Your task to perform on an android device: move an email to a new category in the gmail app Image 0: 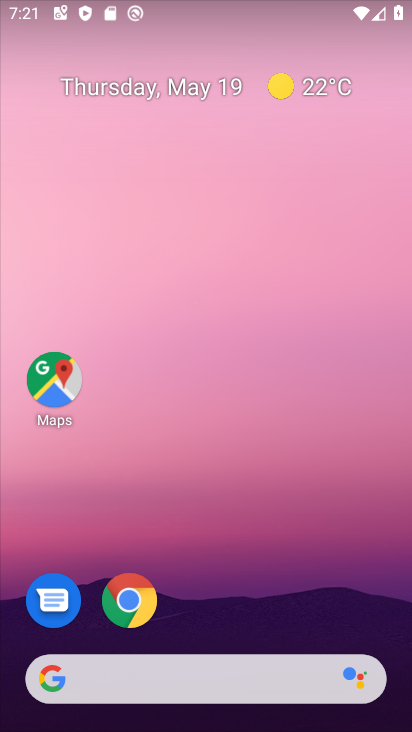
Step 0: drag from (359, 566) to (333, 175)
Your task to perform on an android device: move an email to a new category in the gmail app Image 1: 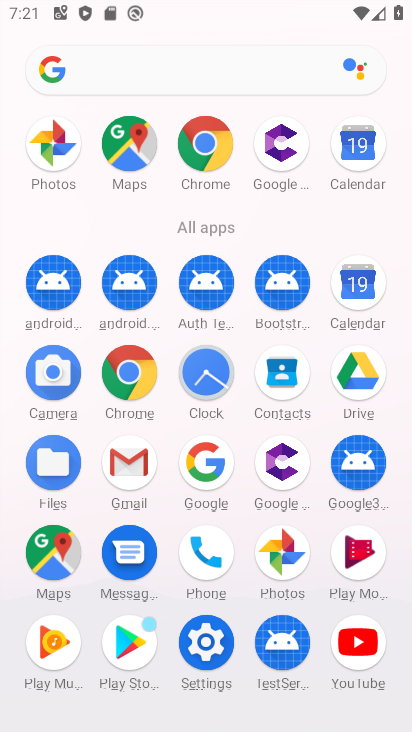
Step 1: click (131, 469)
Your task to perform on an android device: move an email to a new category in the gmail app Image 2: 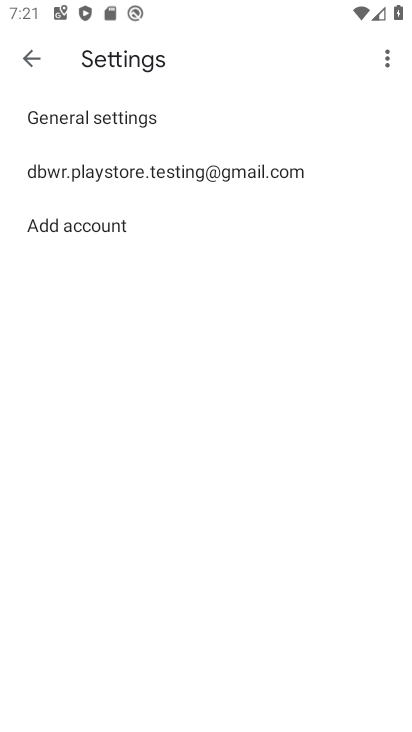
Step 2: click (268, 161)
Your task to perform on an android device: move an email to a new category in the gmail app Image 3: 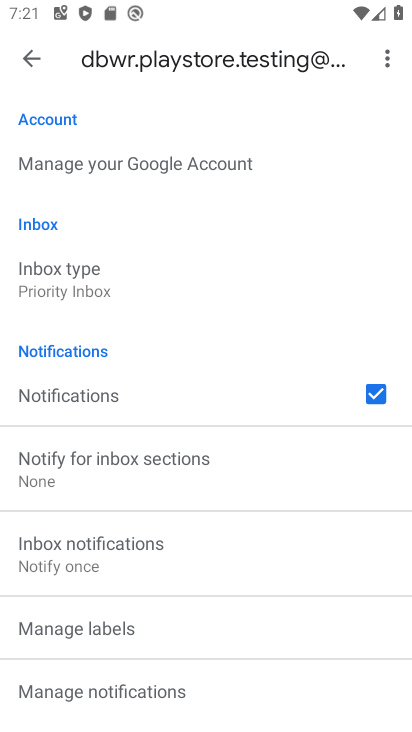
Step 3: click (41, 65)
Your task to perform on an android device: move an email to a new category in the gmail app Image 4: 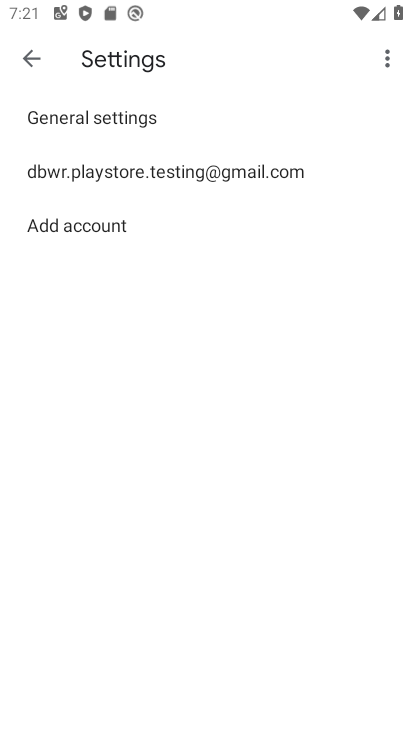
Step 4: click (41, 65)
Your task to perform on an android device: move an email to a new category in the gmail app Image 5: 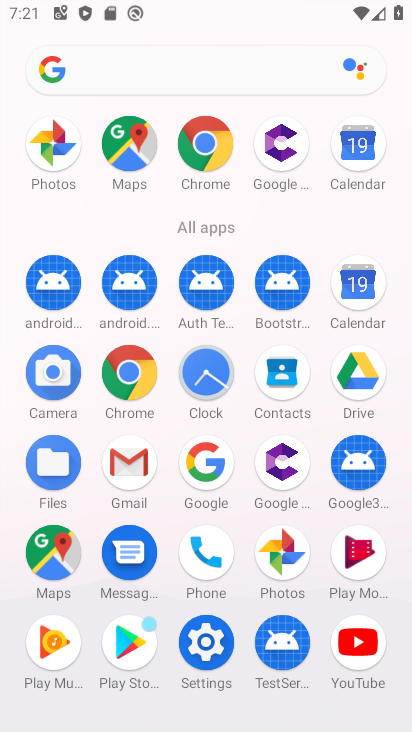
Step 5: click (126, 469)
Your task to perform on an android device: move an email to a new category in the gmail app Image 6: 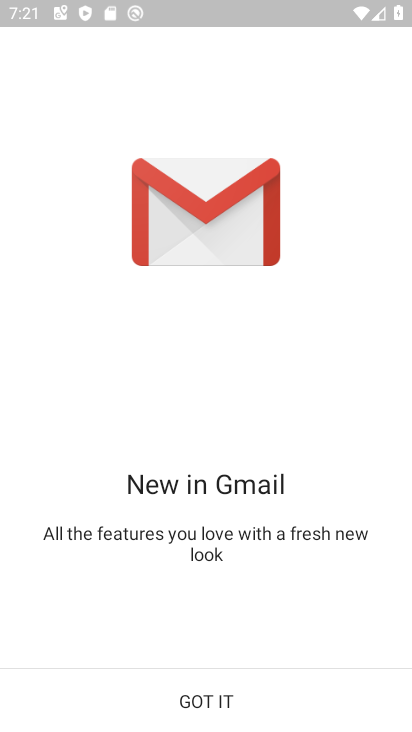
Step 6: click (216, 699)
Your task to perform on an android device: move an email to a new category in the gmail app Image 7: 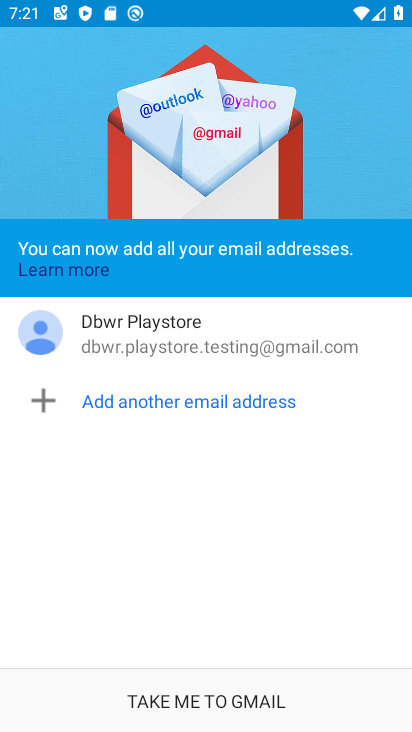
Step 7: click (217, 691)
Your task to perform on an android device: move an email to a new category in the gmail app Image 8: 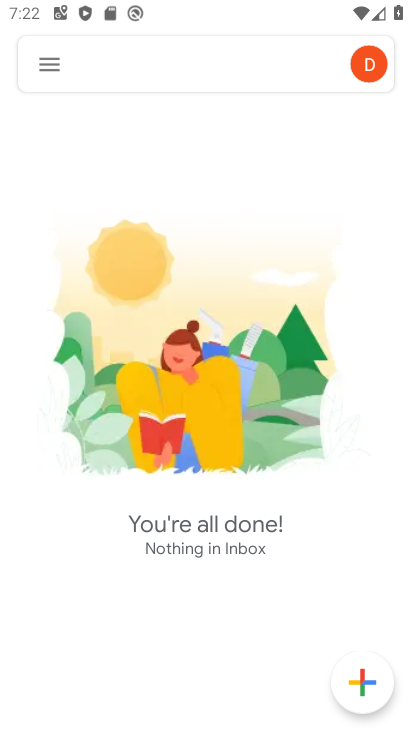
Step 8: click (48, 57)
Your task to perform on an android device: move an email to a new category in the gmail app Image 9: 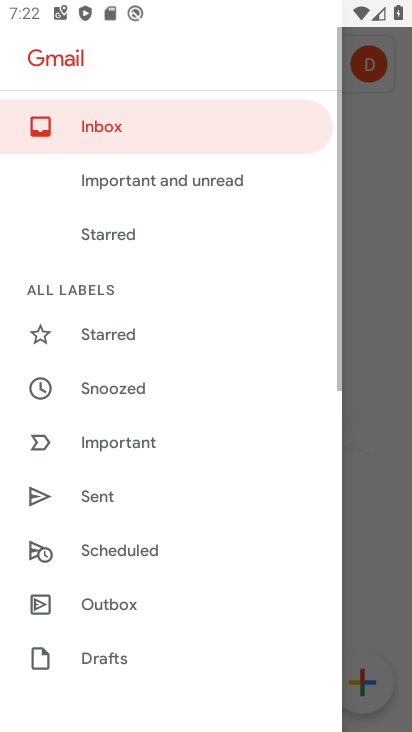
Step 9: drag from (130, 629) to (188, 336)
Your task to perform on an android device: move an email to a new category in the gmail app Image 10: 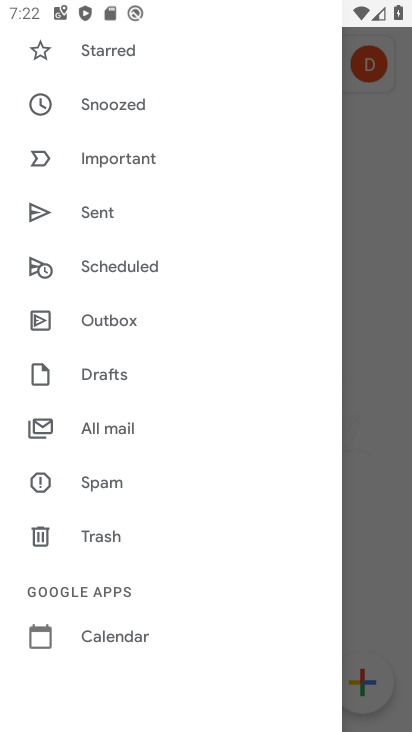
Step 10: click (109, 420)
Your task to perform on an android device: move an email to a new category in the gmail app Image 11: 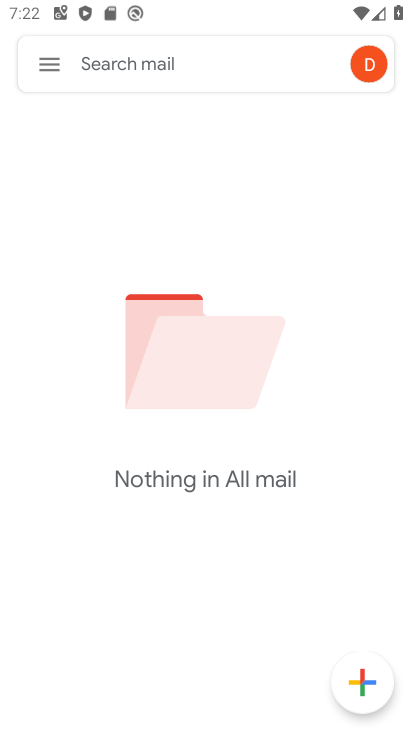
Step 11: task complete